Your task to perform on an android device: Clear the shopping cart on newegg. Image 0: 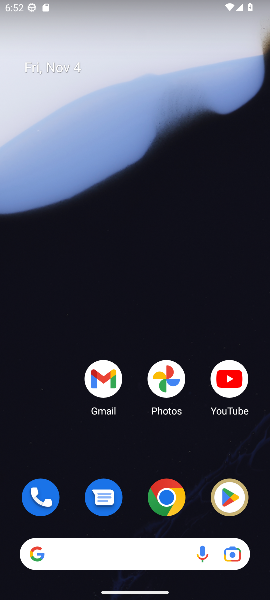
Step 0: click (180, 506)
Your task to perform on an android device: Clear the shopping cart on newegg. Image 1: 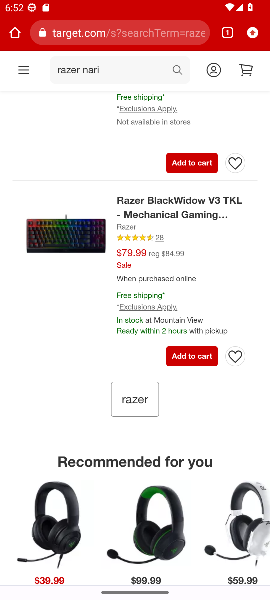
Step 1: click (112, 37)
Your task to perform on an android device: Clear the shopping cart on newegg. Image 2: 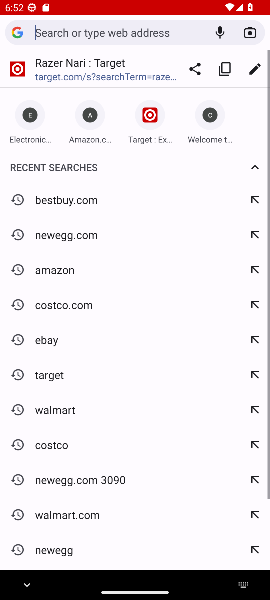
Step 2: click (73, 245)
Your task to perform on an android device: Clear the shopping cart on newegg. Image 3: 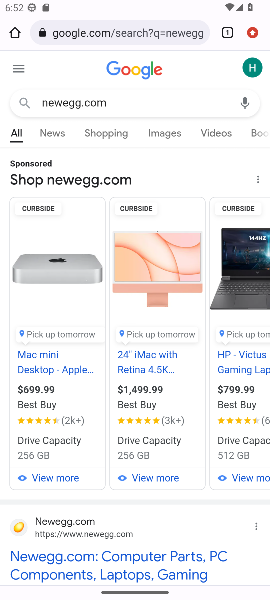
Step 3: click (75, 536)
Your task to perform on an android device: Clear the shopping cart on newegg. Image 4: 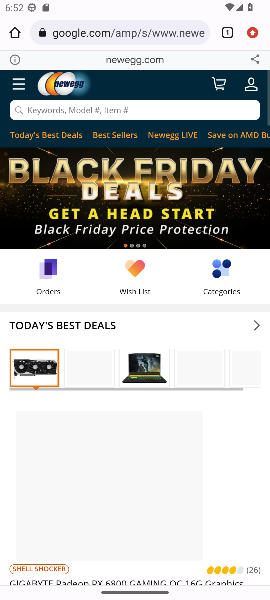
Step 4: click (222, 85)
Your task to perform on an android device: Clear the shopping cart on newegg. Image 5: 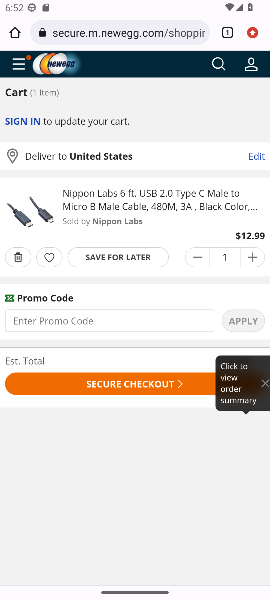
Step 5: click (18, 258)
Your task to perform on an android device: Clear the shopping cart on newegg. Image 6: 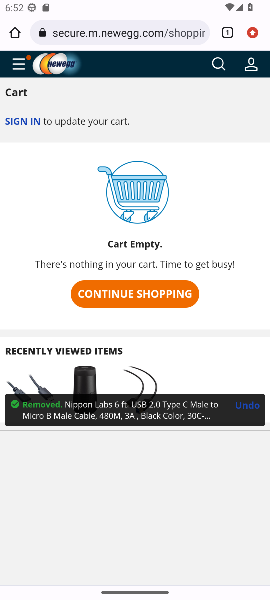
Step 6: task complete